Your task to perform on an android device: Go to notification settings Image 0: 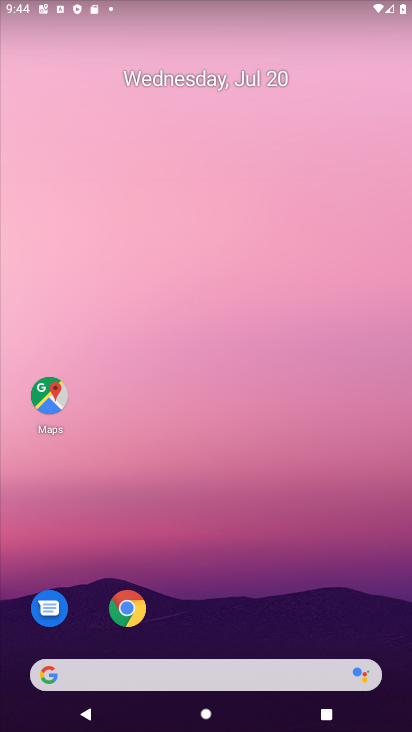
Step 0: drag from (240, 599) to (241, 54)
Your task to perform on an android device: Go to notification settings Image 1: 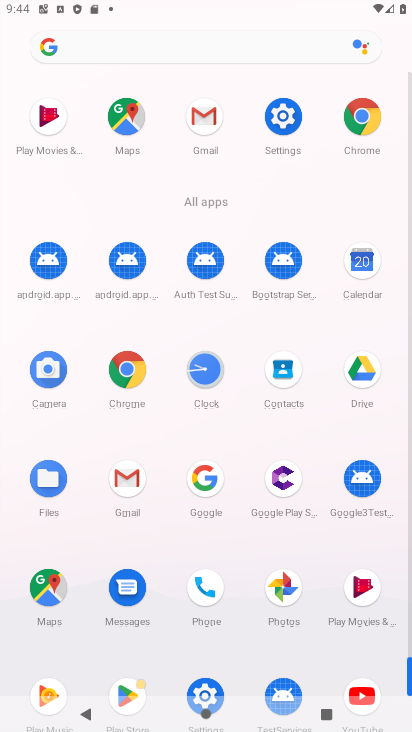
Step 1: click (204, 690)
Your task to perform on an android device: Go to notification settings Image 2: 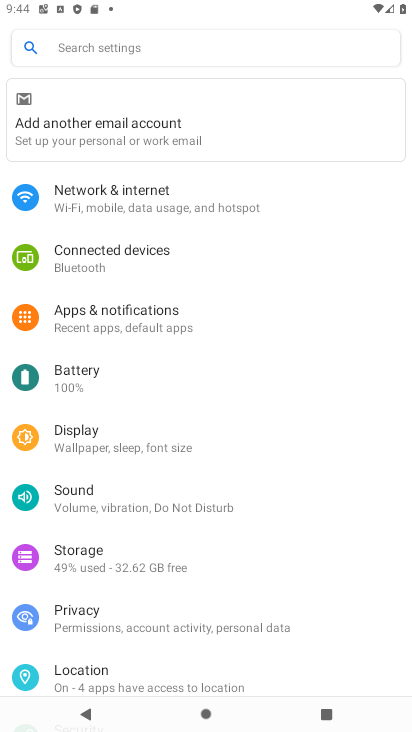
Step 2: click (149, 340)
Your task to perform on an android device: Go to notification settings Image 3: 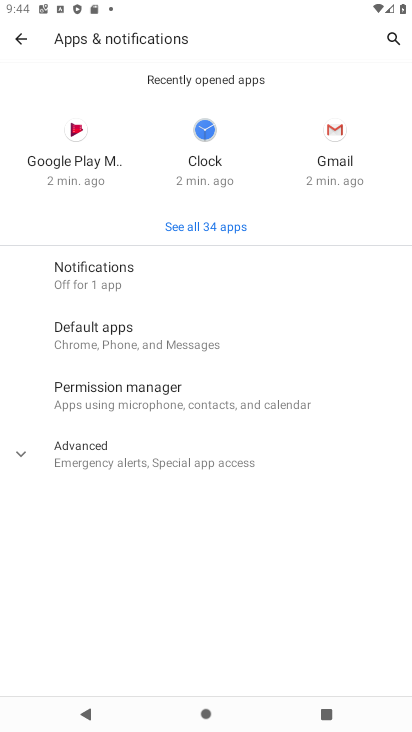
Step 3: click (170, 294)
Your task to perform on an android device: Go to notification settings Image 4: 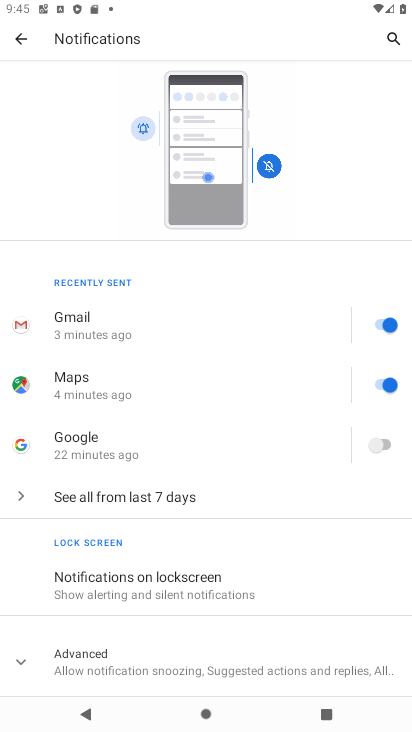
Step 4: task complete